Your task to perform on an android device: turn on wifi Image 0: 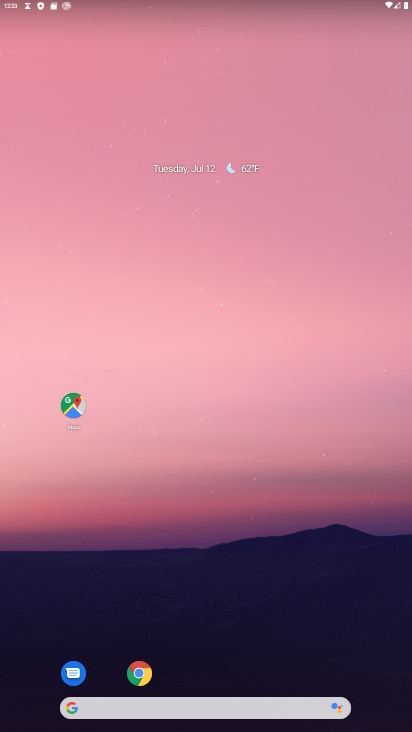
Step 0: press home button
Your task to perform on an android device: turn on wifi Image 1: 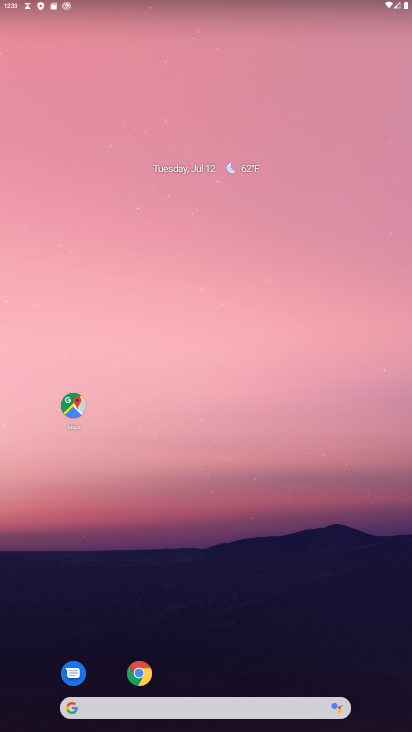
Step 1: task complete